Your task to perform on an android device: toggle airplane mode Image 0: 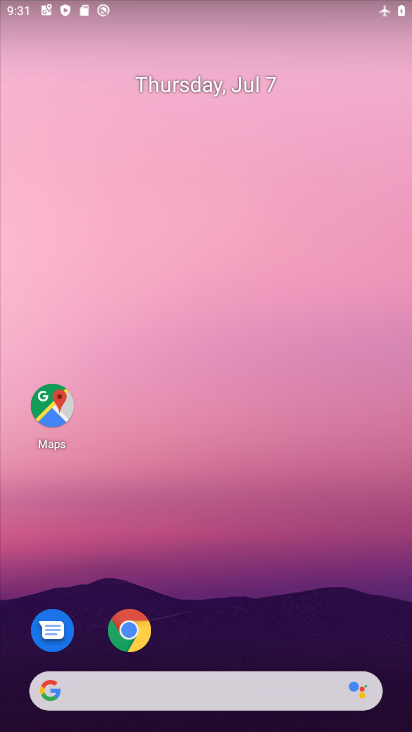
Step 0: drag from (196, 649) to (210, 264)
Your task to perform on an android device: toggle airplane mode Image 1: 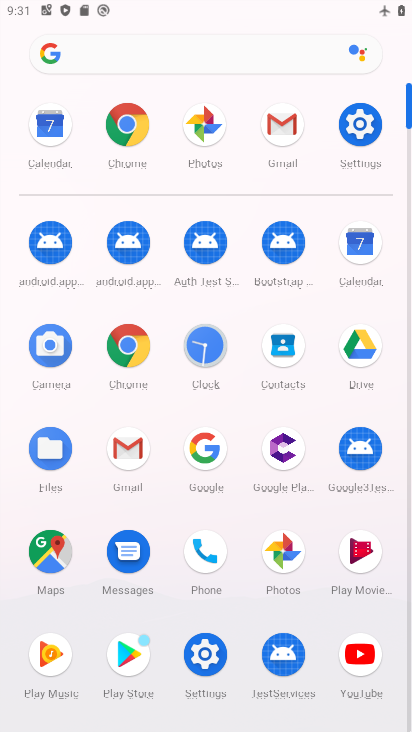
Step 1: click (361, 137)
Your task to perform on an android device: toggle airplane mode Image 2: 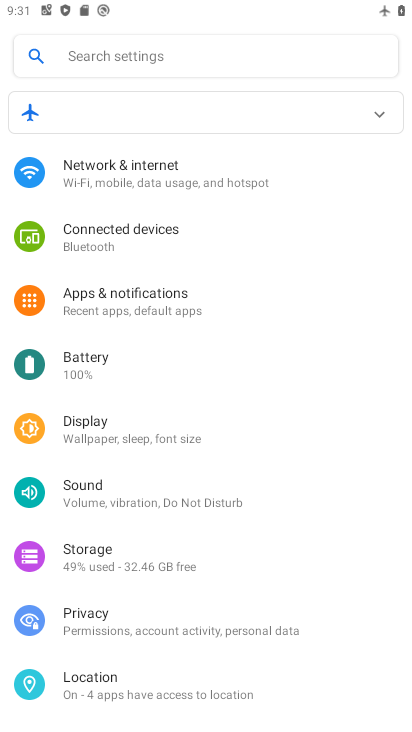
Step 2: click (182, 191)
Your task to perform on an android device: toggle airplane mode Image 3: 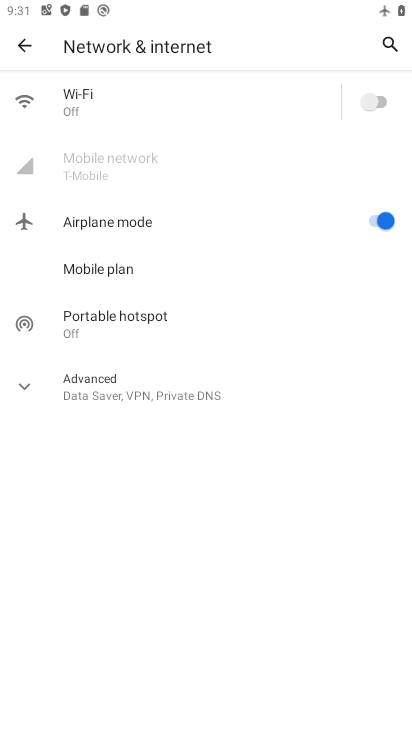
Step 3: click (370, 227)
Your task to perform on an android device: toggle airplane mode Image 4: 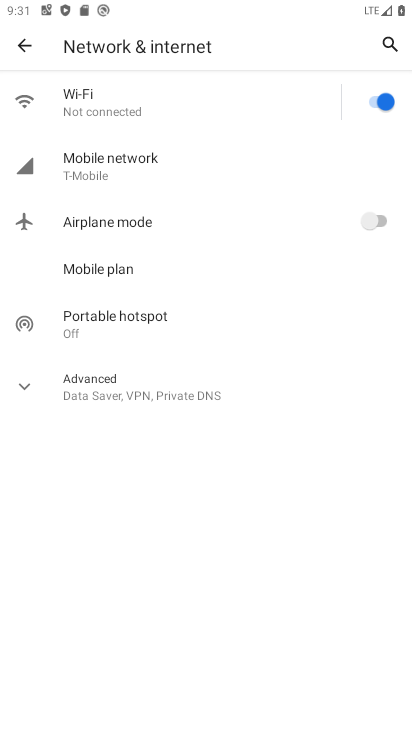
Step 4: task complete